Your task to perform on an android device: set the timer Image 0: 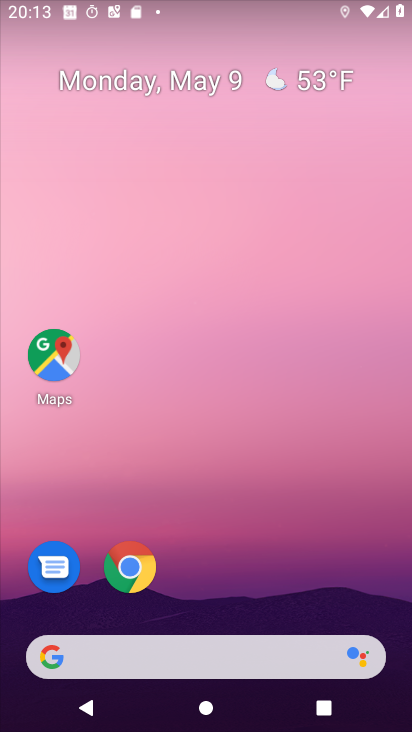
Step 0: drag from (248, 603) to (229, 0)
Your task to perform on an android device: set the timer Image 1: 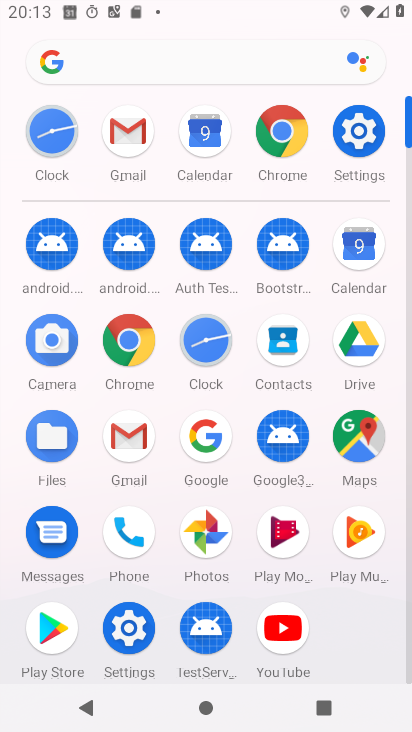
Step 1: click (213, 349)
Your task to perform on an android device: set the timer Image 2: 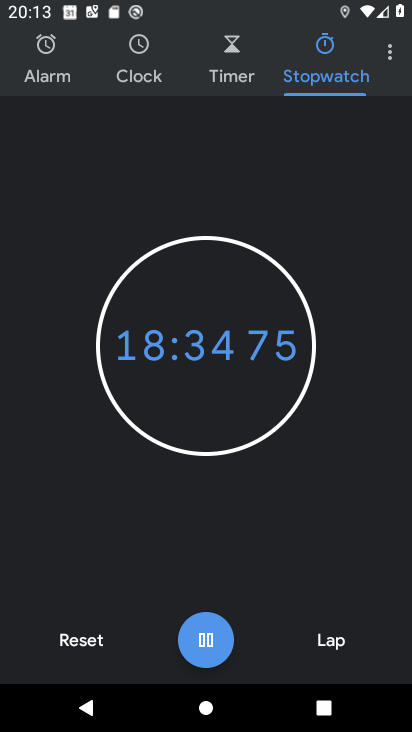
Step 2: click (227, 82)
Your task to perform on an android device: set the timer Image 3: 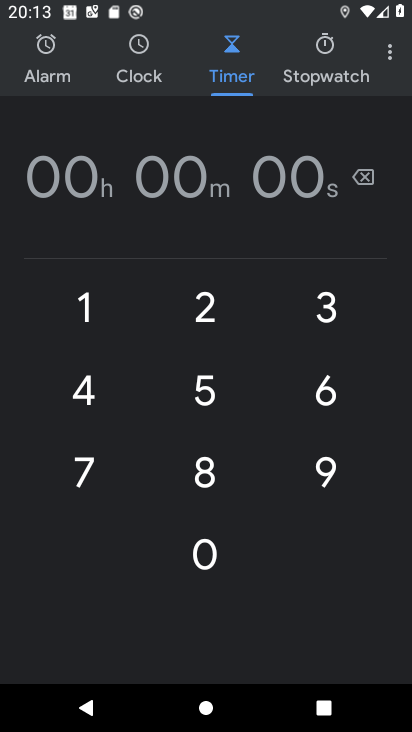
Step 3: click (201, 312)
Your task to perform on an android device: set the timer Image 4: 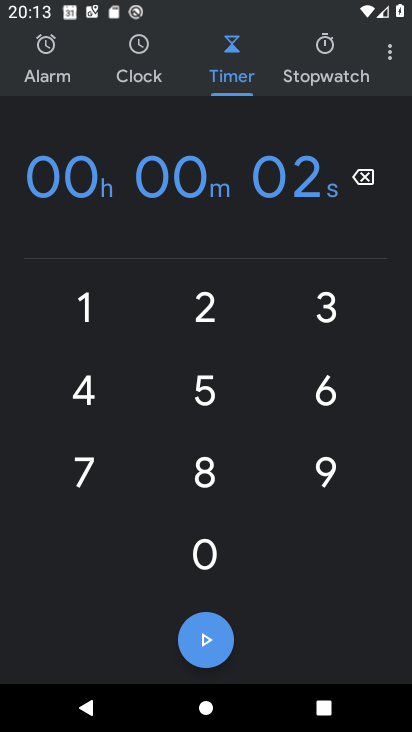
Step 4: click (205, 385)
Your task to perform on an android device: set the timer Image 5: 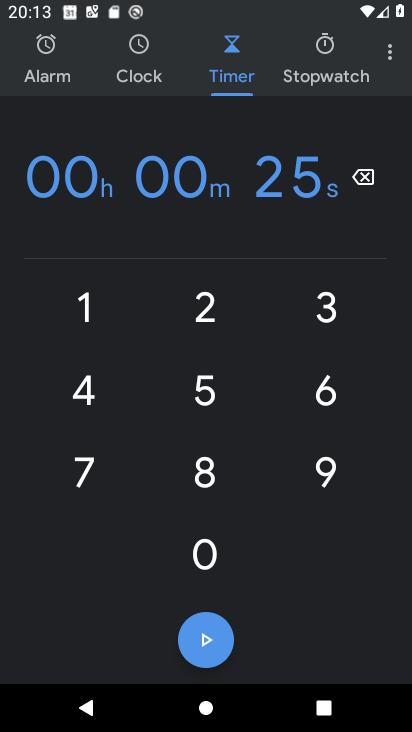
Step 5: click (227, 473)
Your task to perform on an android device: set the timer Image 6: 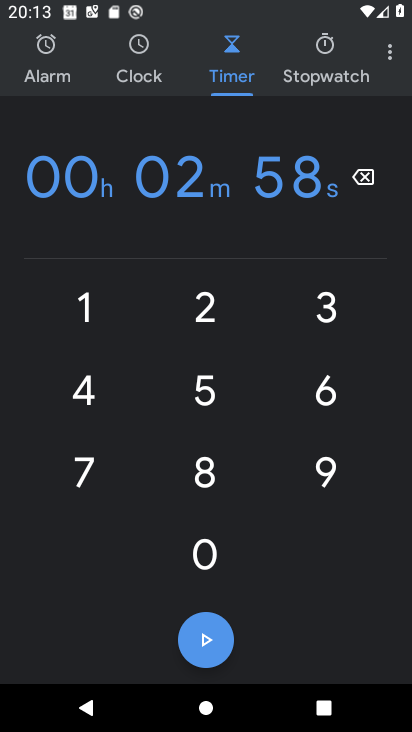
Step 6: click (207, 530)
Your task to perform on an android device: set the timer Image 7: 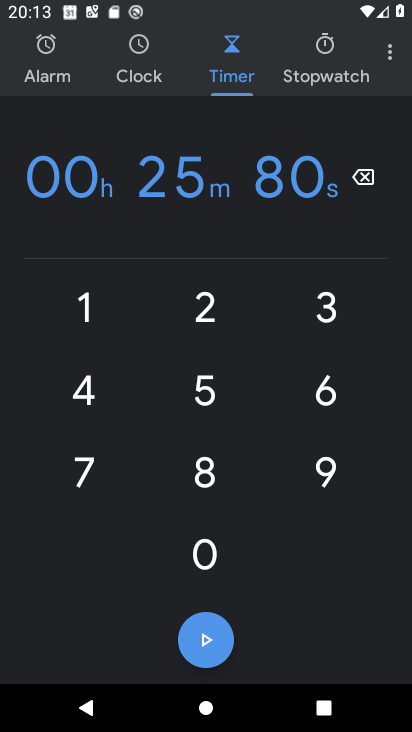
Step 7: click (202, 483)
Your task to perform on an android device: set the timer Image 8: 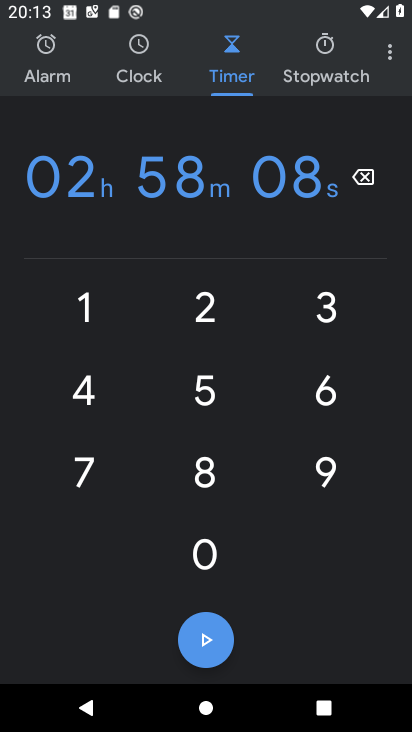
Step 8: click (190, 366)
Your task to perform on an android device: set the timer Image 9: 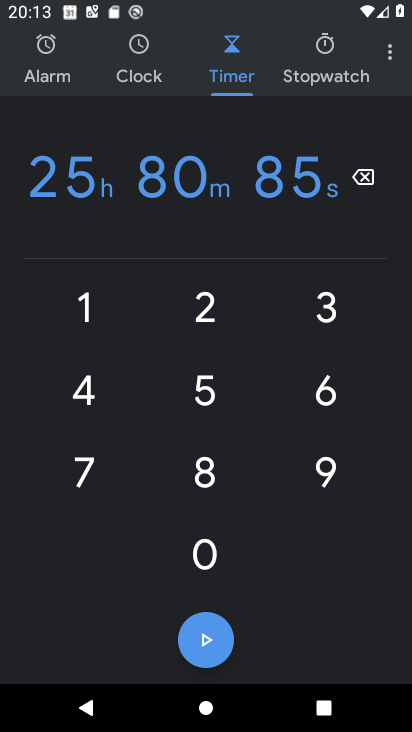
Step 9: click (193, 644)
Your task to perform on an android device: set the timer Image 10: 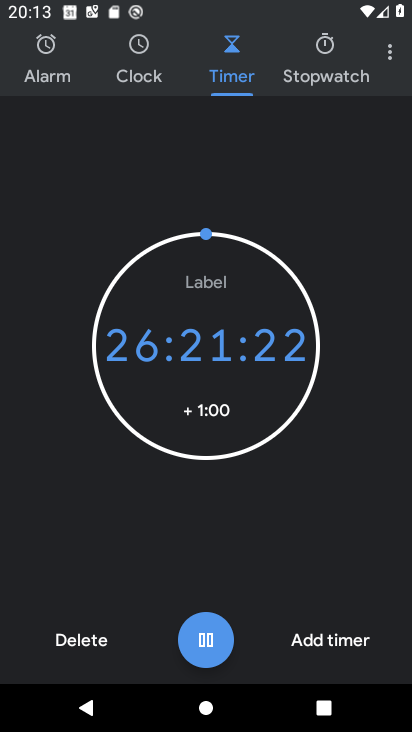
Step 10: task complete